Your task to perform on an android device: Go to privacy settings Image 0: 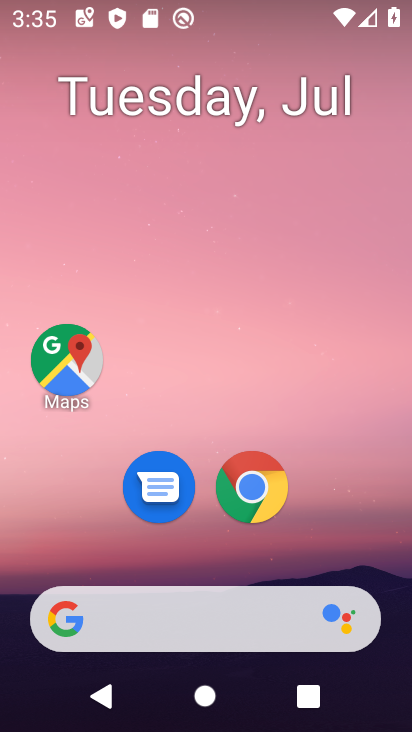
Step 0: drag from (196, 527) to (210, 29)
Your task to perform on an android device: Go to privacy settings Image 1: 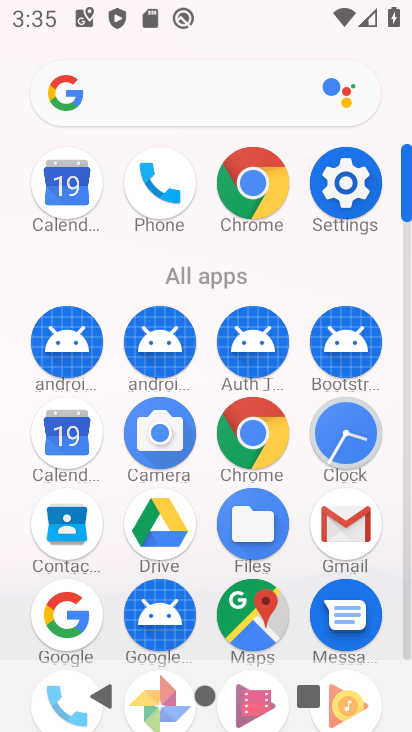
Step 1: click (351, 178)
Your task to perform on an android device: Go to privacy settings Image 2: 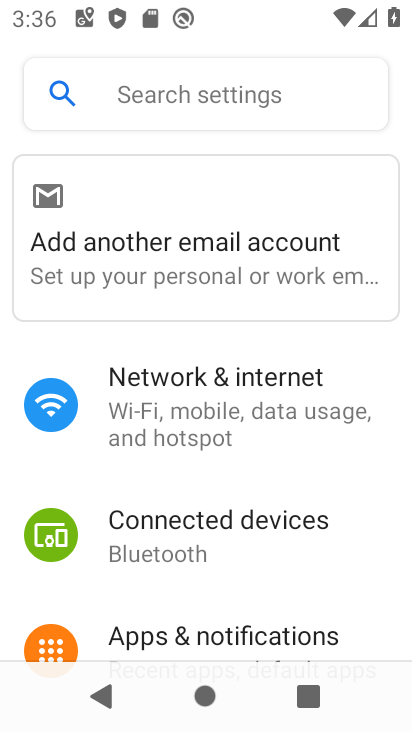
Step 2: drag from (195, 613) to (273, 77)
Your task to perform on an android device: Go to privacy settings Image 3: 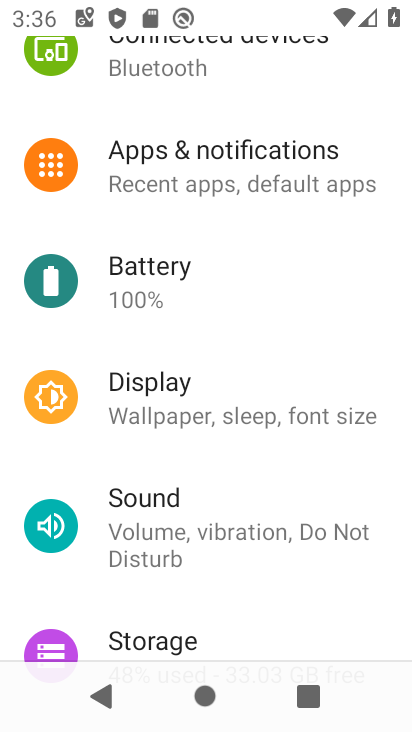
Step 3: drag from (187, 613) to (318, 114)
Your task to perform on an android device: Go to privacy settings Image 4: 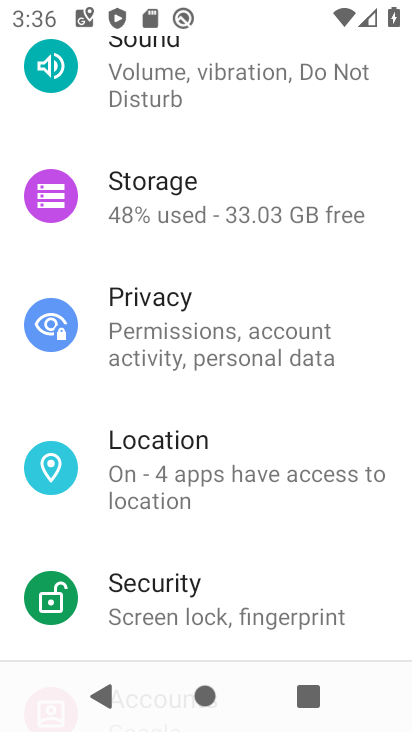
Step 4: click (158, 325)
Your task to perform on an android device: Go to privacy settings Image 5: 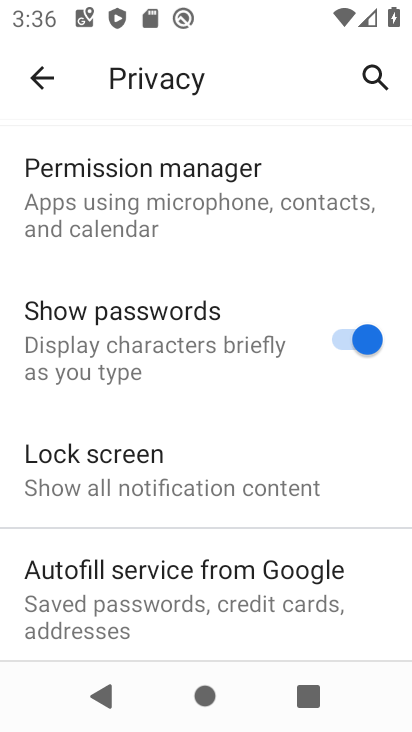
Step 5: task complete